Your task to perform on an android device: change alarm snooze length Image 0: 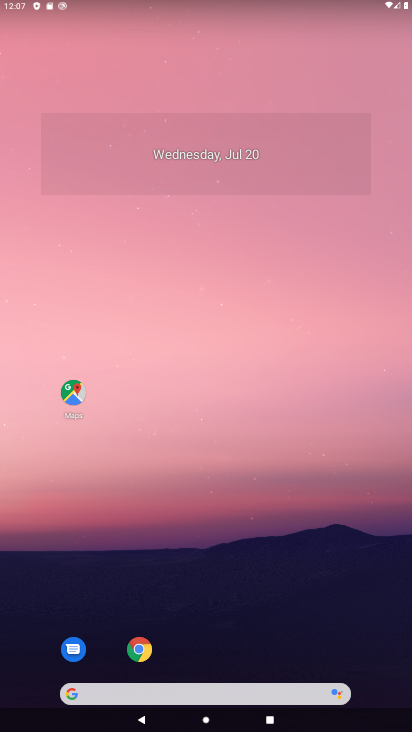
Step 0: drag from (219, 703) to (233, 110)
Your task to perform on an android device: change alarm snooze length Image 1: 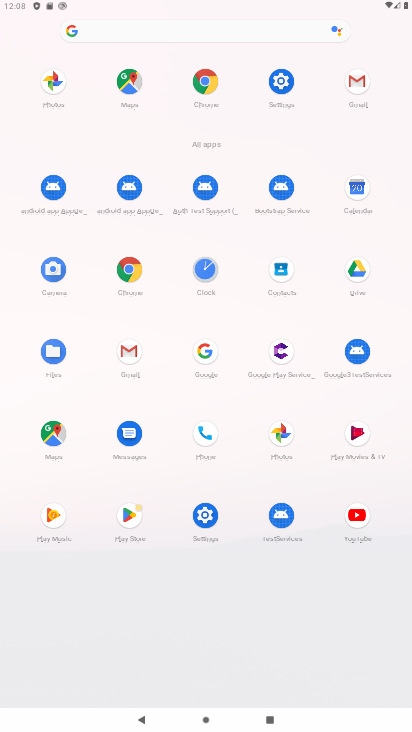
Step 1: click (202, 281)
Your task to perform on an android device: change alarm snooze length Image 2: 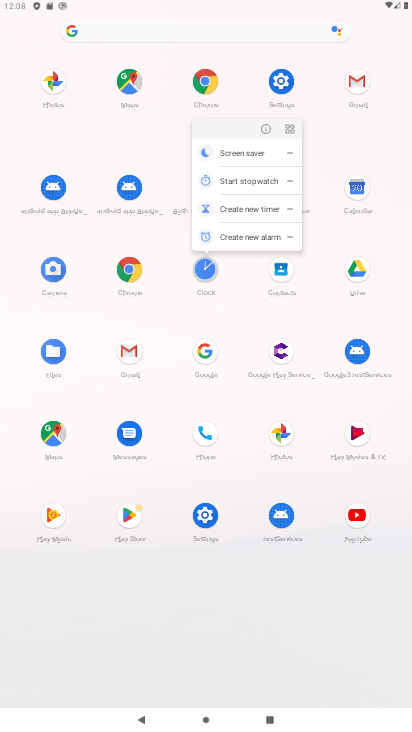
Step 2: click (202, 281)
Your task to perform on an android device: change alarm snooze length Image 3: 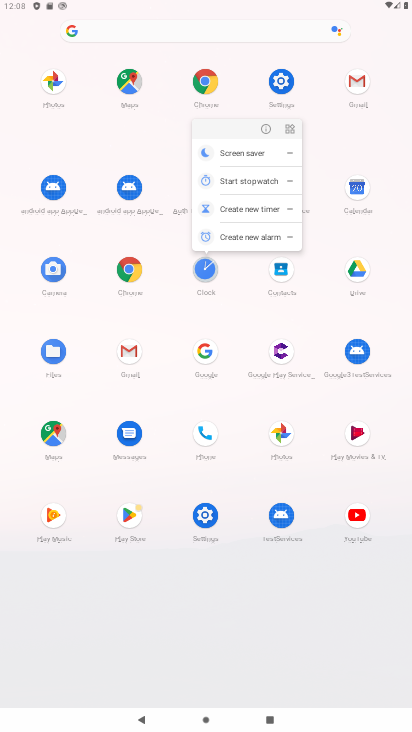
Step 3: click (202, 281)
Your task to perform on an android device: change alarm snooze length Image 4: 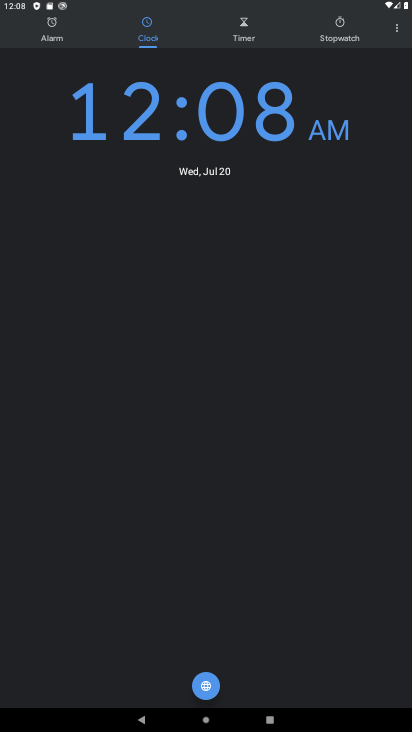
Step 4: click (396, 28)
Your task to perform on an android device: change alarm snooze length Image 5: 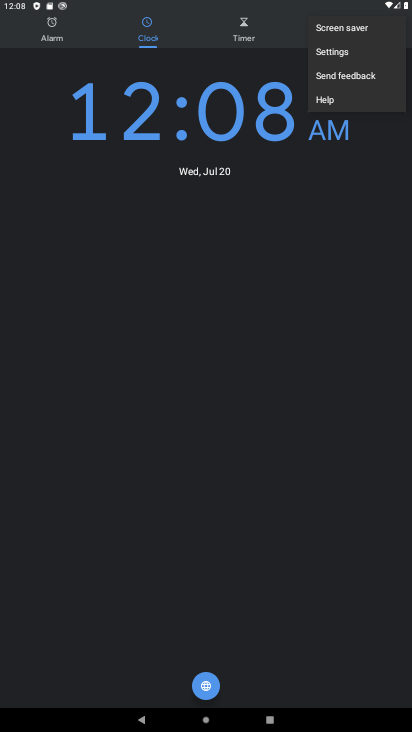
Step 5: click (364, 55)
Your task to perform on an android device: change alarm snooze length Image 6: 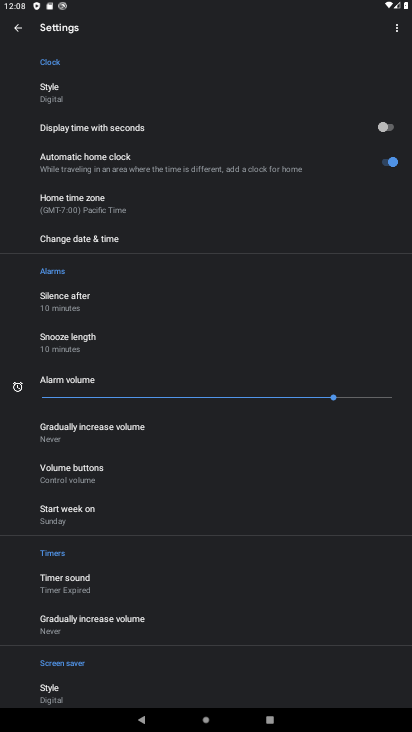
Step 6: click (116, 341)
Your task to perform on an android device: change alarm snooze length Image 7: 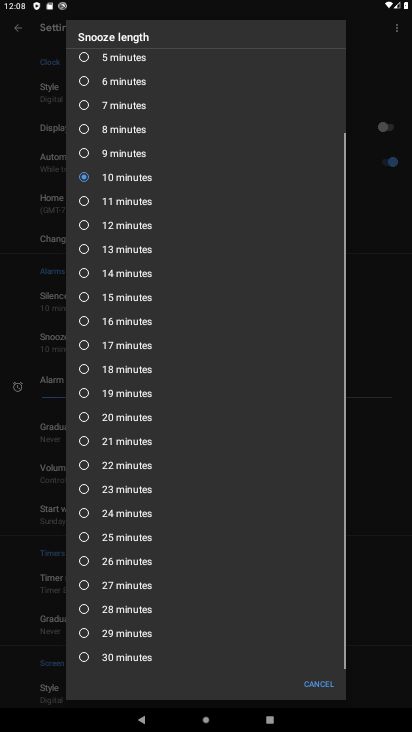
Step 7: click (116, 341)
Your task to perform on an android device: change alarm snooze length Image 8: 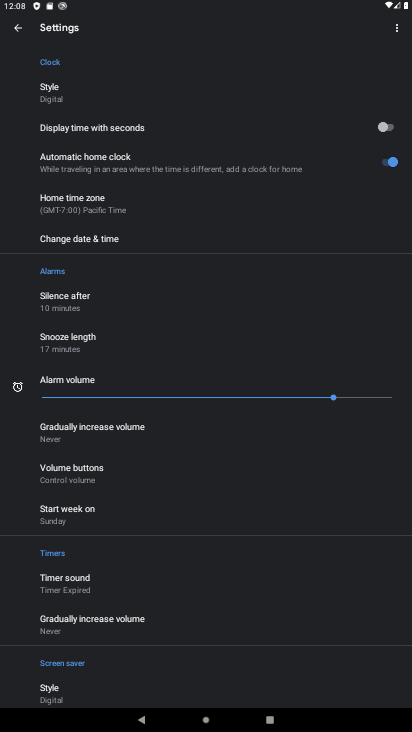
Step 8: task complete